Your task to perform on an android device: add a label to a message in the gmail app Image 0: 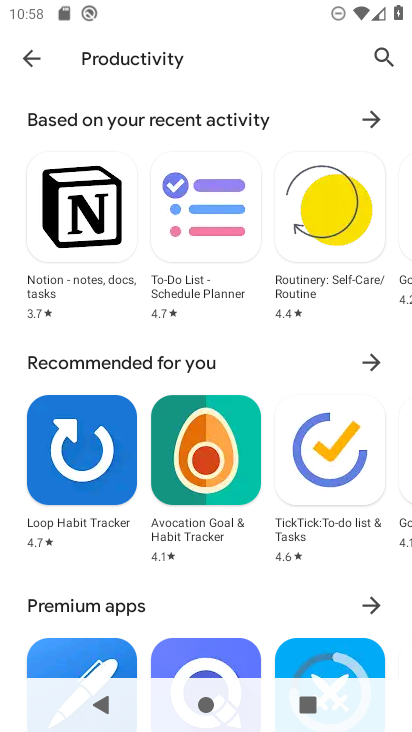
Step 0: press home button
Your task to perform on an android device: add a label to a message in the gmail app Image 1: 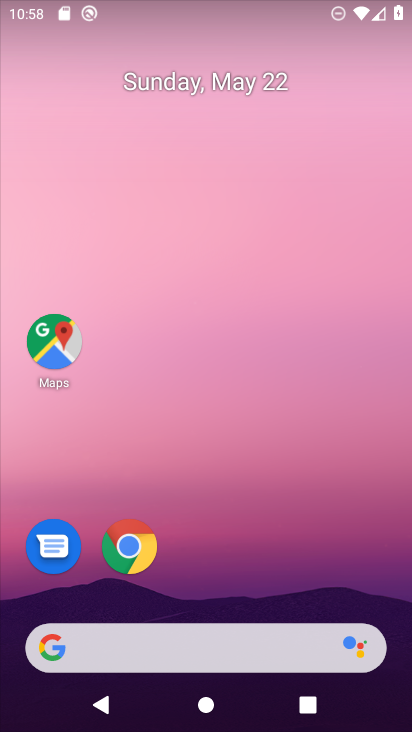
Step 1: drag from (229, 581) to (234, 6)
Your task to perform on an android device: add a label to a message in the gmail app Image 2: 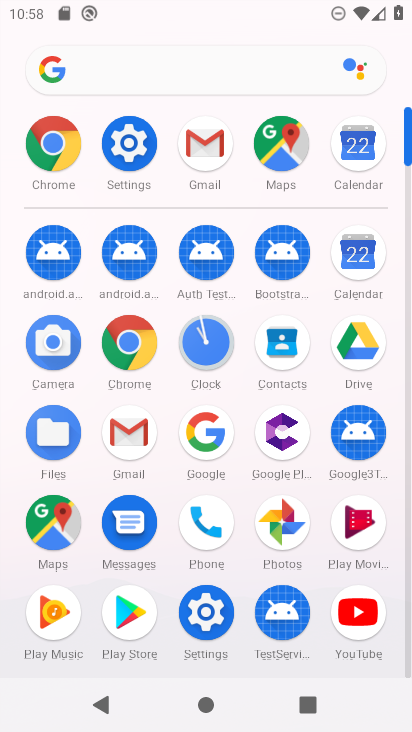
Step 2: click (129, 440)
Your task to perform on an android device: add a label to a message in the gmail app Image 3: 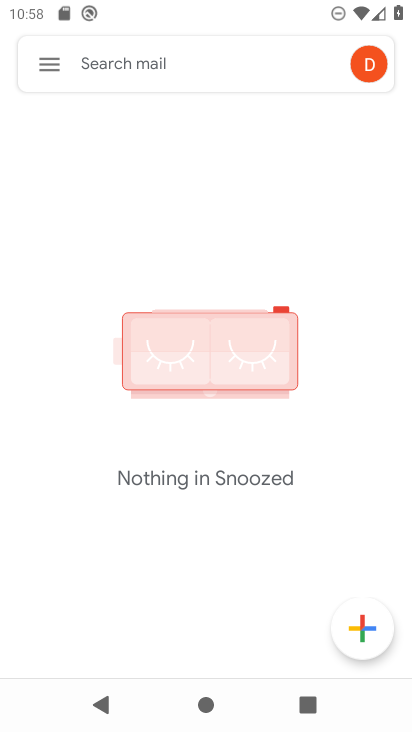
Step 3: click (46, 73)
Your task to perform on an android device: add a label to a message in the gmail app Image 4: 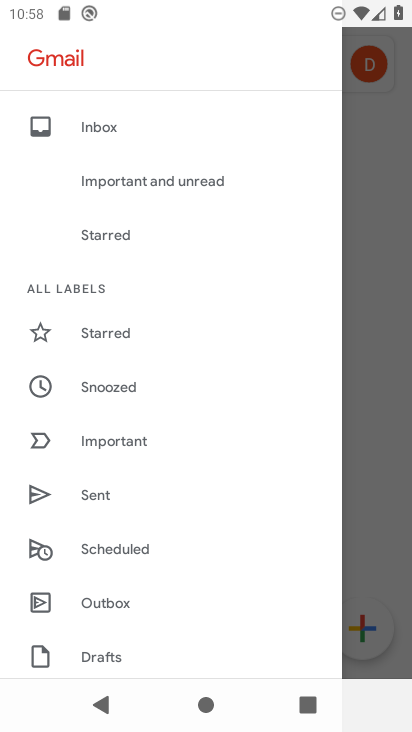
Step 4: drag from (107, 527) to (168, 58)
Your task to perform on an android device: add a label to a message in the gmail app Image 5: 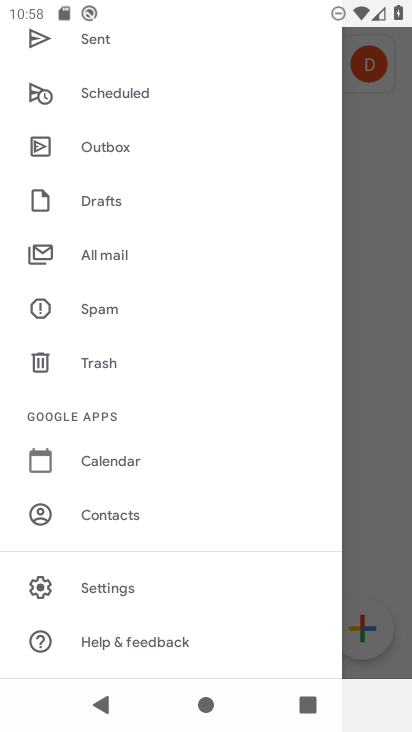
Step 5: click (128, 256)
Your task to perform on an android device: add a label to a message in the gmail app Image 6: 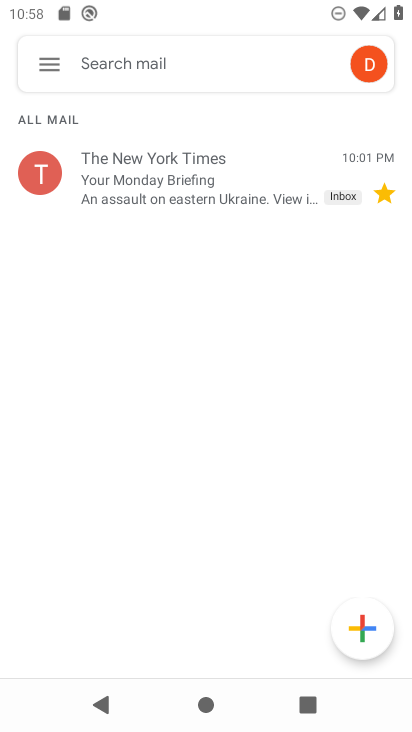
Step 6: click (45, 174)
Your task to perform on an android device: add a label to a message in the gmail app Image 7: 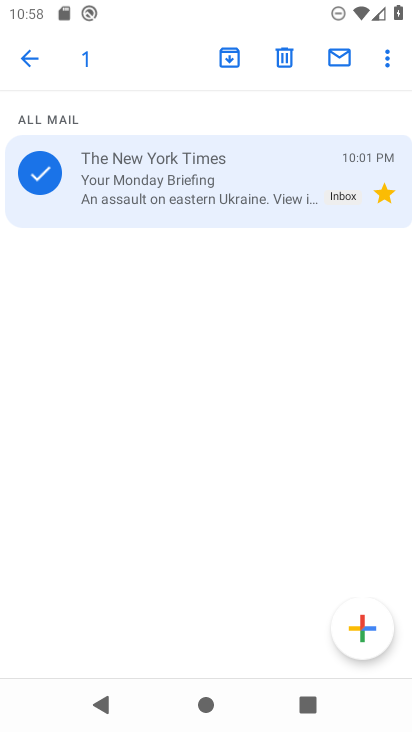
Step 7: click (385, 61)
Your task to perform on an android device: add a label to a message in the gmail app Image 8: 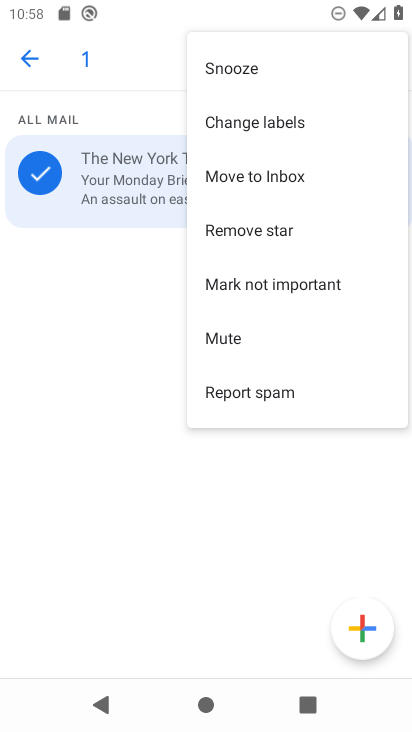
Step 8: click (294, 133)
Your task to perform on an android device: add a label to a message in the gmail app Image 9: 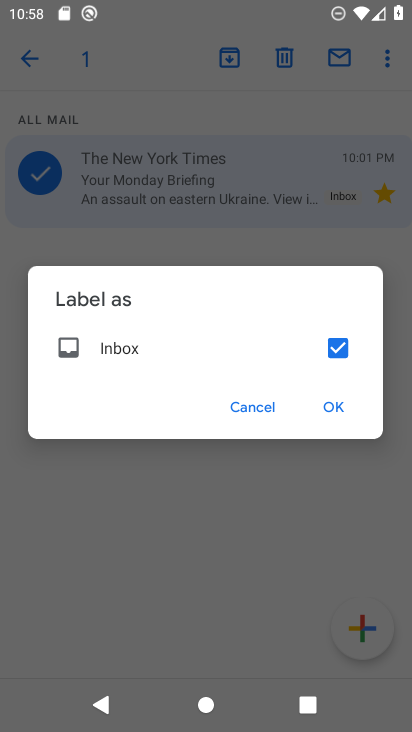
Step 9: click (331, 352)
Your task to perform on an android device: add a label to a message in the gmail app Image 10: 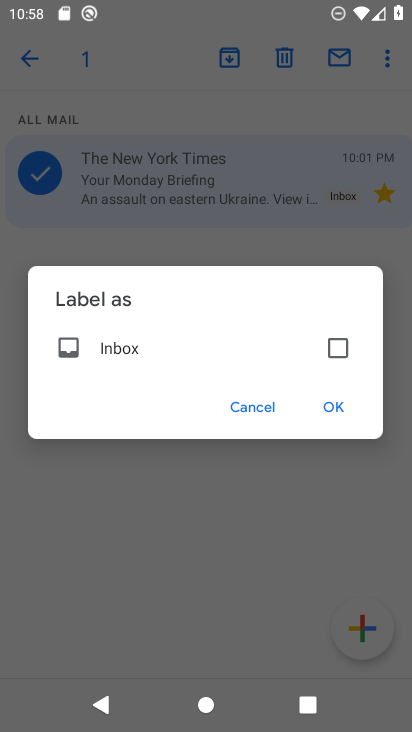
Step 10: click (335, 417)
Your task to perform on an android device: add a label to a message in the gmail app Image 11: 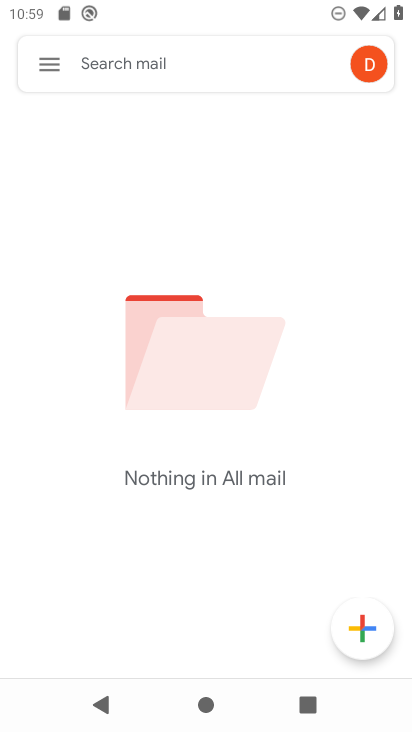
Step 11: task complete